Your task to perform on an android device: Check the news Image 0: 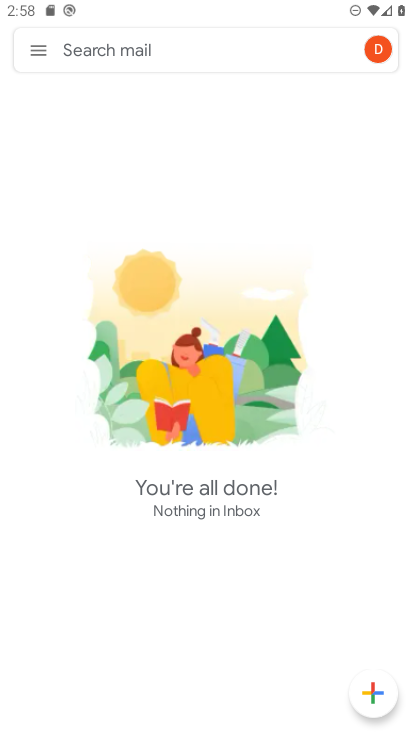
Step 0: press home button
Your task to perform on an android device: Check the news Image 1: 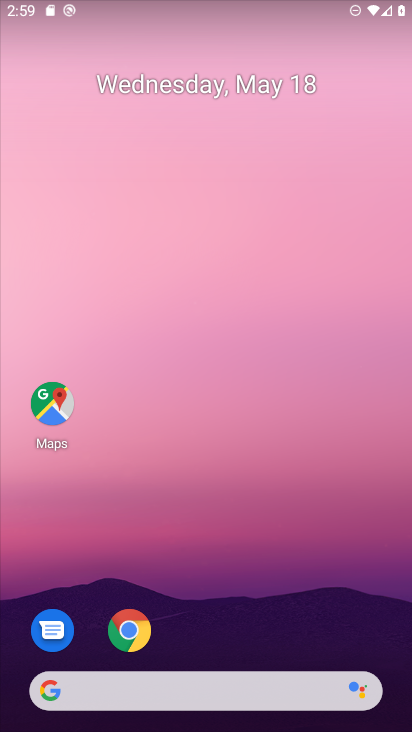
Step 1: task complete